Your task to perform on an android device: turn off sleep mode Image 0: 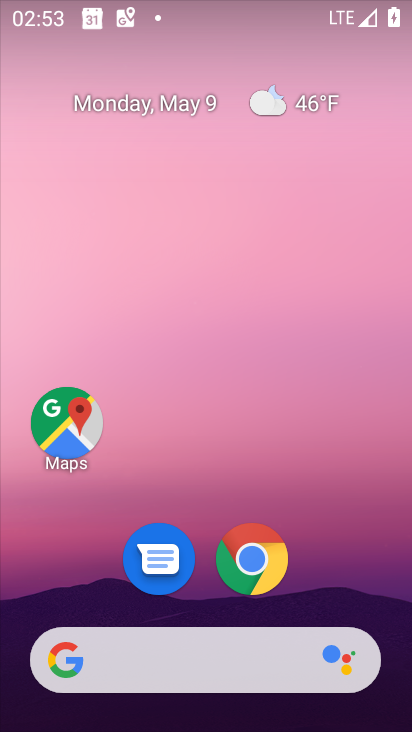
Step 0: drag from (212, 416) to (220, 67)
Your task to perform on an android device: turn off sleep mode Image 1: 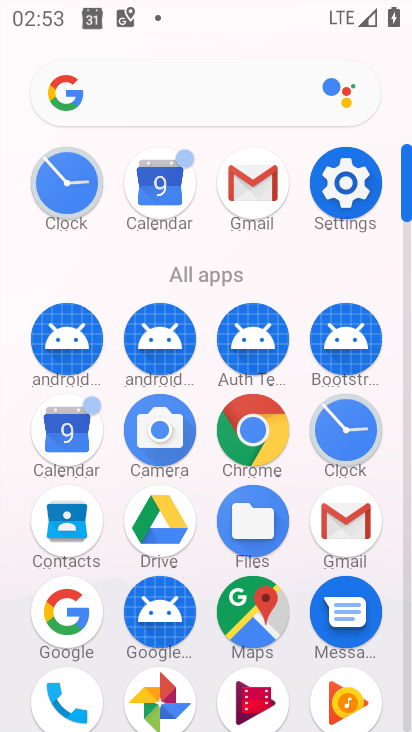
Step 1: click (347, 182)
Your task to perform on an android device: turn off sleep mode Image 2: 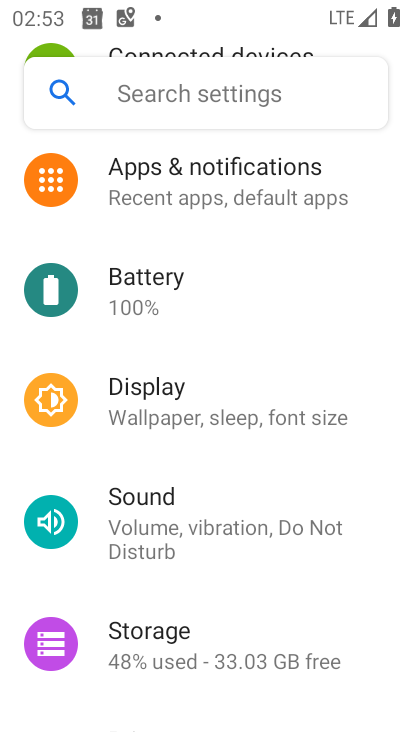
Step 2: drag from (258, 491) to (267, 352)
Your task to perform on an android device: turn off sleep mode Image 3: 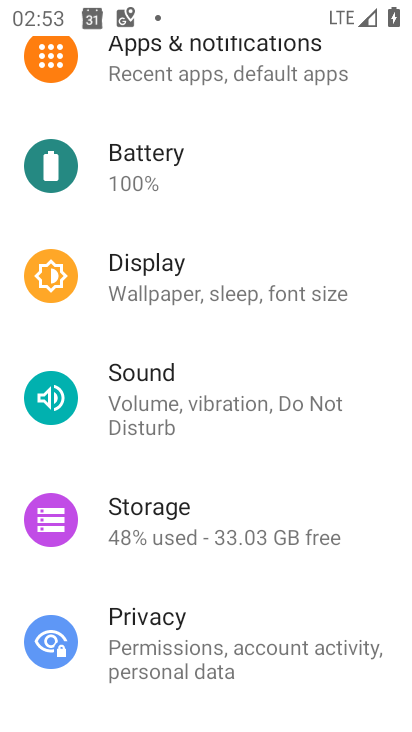
Step 3: drag from (207, 468) to (221, 298)
Your task to perform on an android device: turn off sleep mode Image 4: 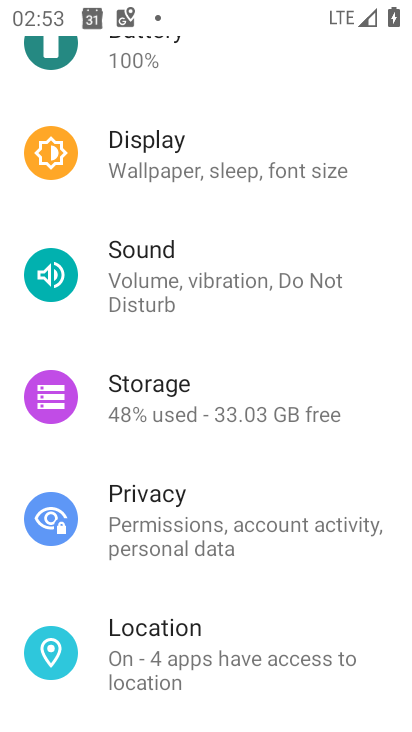
Step 4: drag from (200, 456) to (184, 360)
Your task to perform on an android device: turn off sleep mode Image 5: 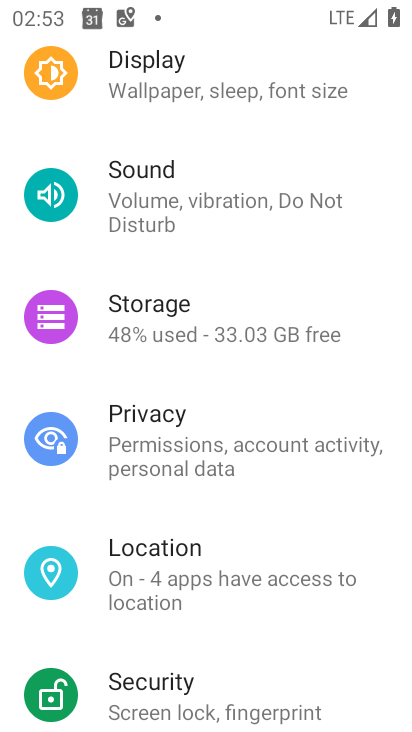
Step 5: drag from (177, 503) to (200, 399)
Your task to perform on an android device: turn off sleep mode Image 6: 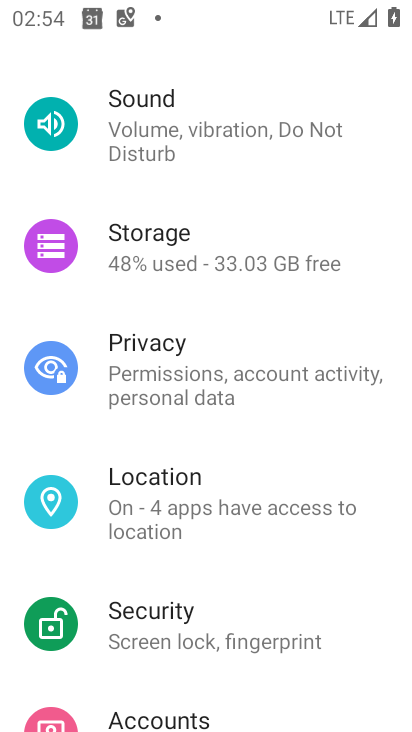
Step 6: drag from (220, 225) to (250, 347)
Your task to perform on an android device: turn off sleep mode Image 7: 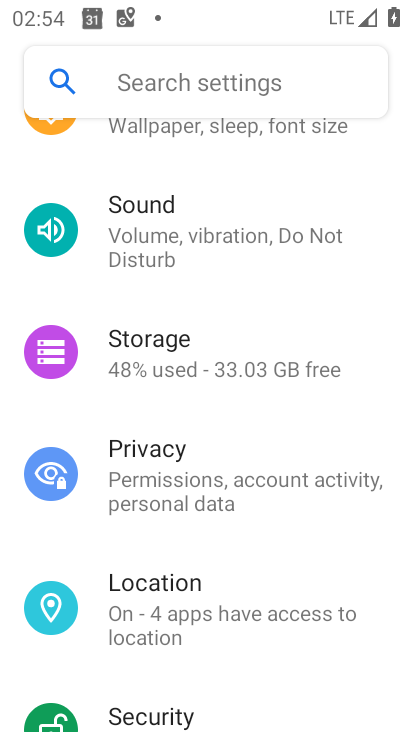
Step 7: drag from (219, 199) to (209, 314)
Your task to perform on an android device: turn off sleep mode Image 8: 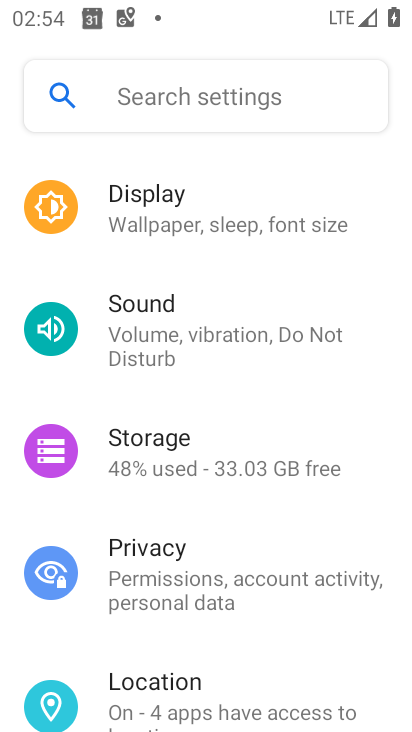
Step 8: click (165, 211)
Your task to perform on an android device: turn off sleep mode Image 9: 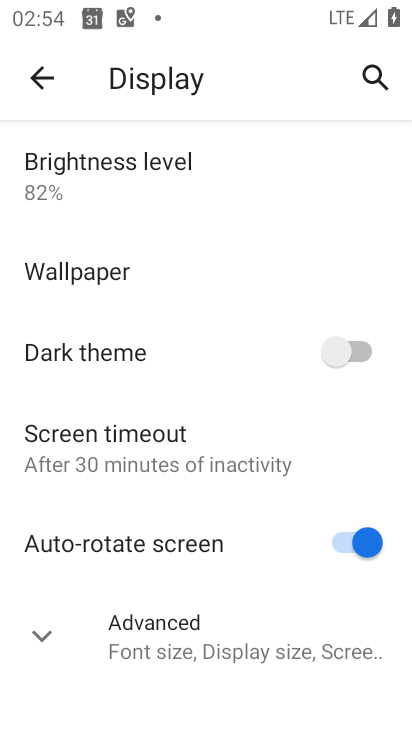
Step 9: drag from (241, 515) to (259, 330)
Your task to perform on an android device: turn off sleep mode Image 10: 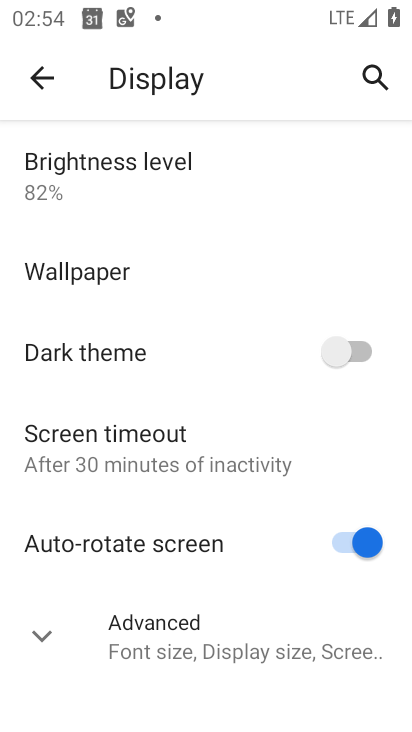
Step 10: click (189, 625)
Your task to perform on an android device: turn off sleep mode Image 11: 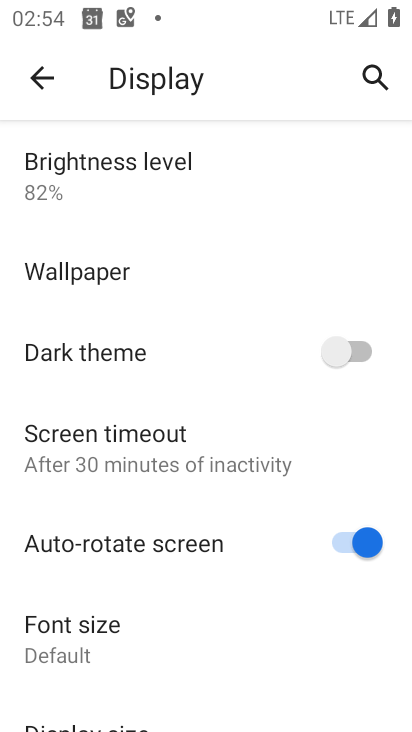
Step 11: task complete